Your task to perform on an android device: turn on translation in the chrome app Image 0: 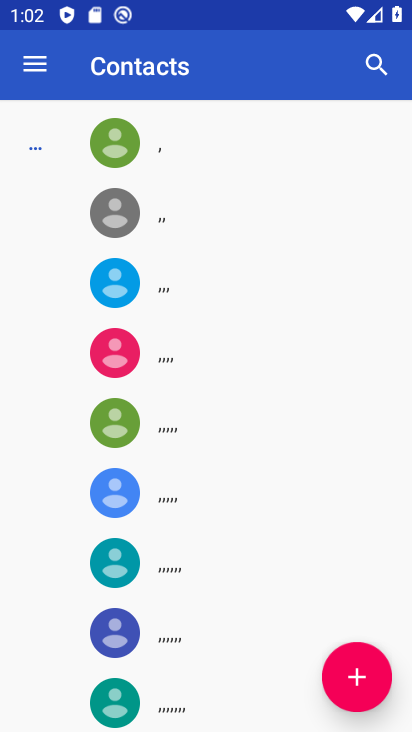
Step 0: press home button
Your task to perform on an android device: turn on translation in the chrome app Image 1: 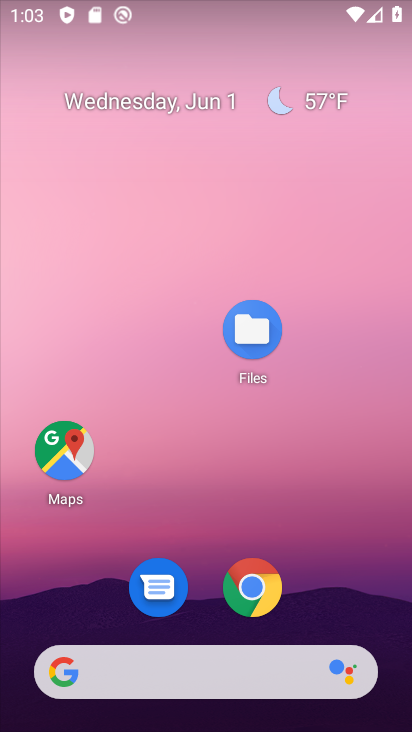
Step 1: click (247, 603)
Your task to perform on an android device: turn on translation in the chrome app Image 2: 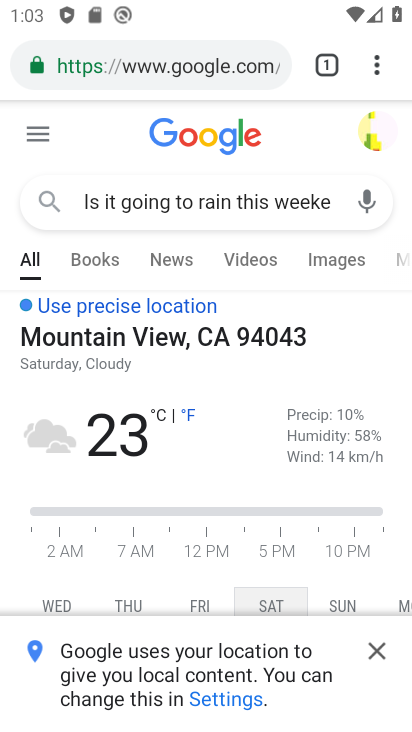
Step 2: drag from (371, 65) to (212, 636)
Your task to perform on an android device: turn on translation in the chrome app Image 3: 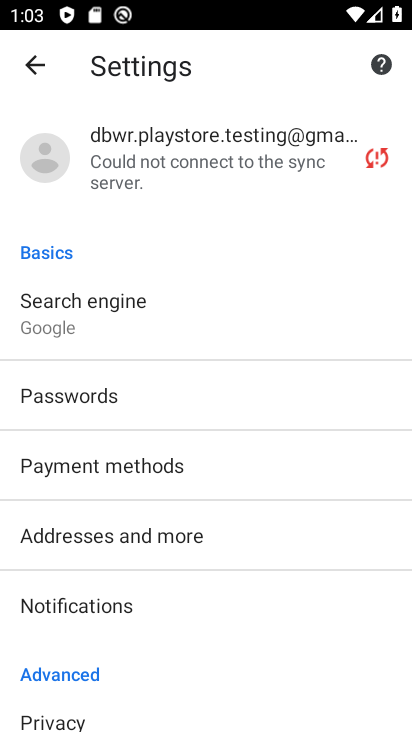
Step 3: drag from (192, 621) to (183, 329)
Your task to perform on an android device: turn on translation in the chrome app Image 4: 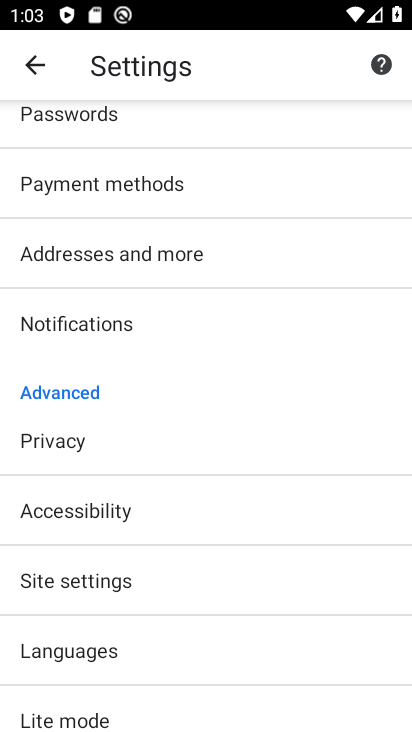
Step 4: drag from (141, 621) to (180, 414)
Your task to perform on an android device: turn on translation in the chrome app Image 5: 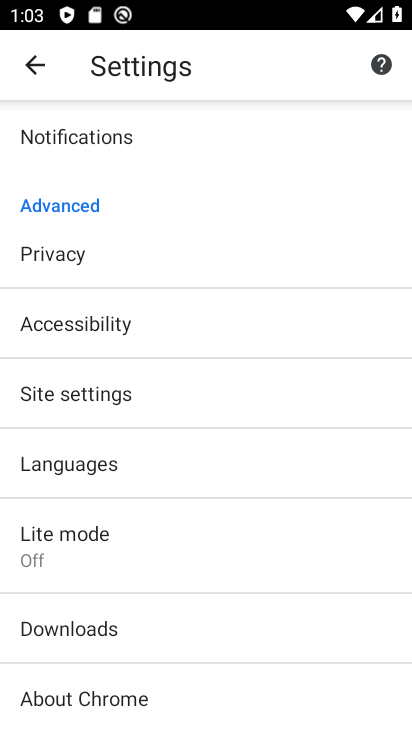
Step 5: click (122, 548)
Your task to perform on an android device: turn on translation in the chrome app Image 6: 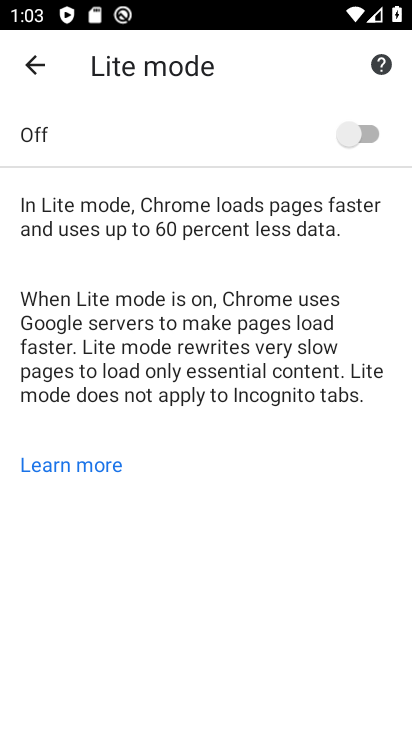
Step 6: click (185, 142)
Your task to perform on an android device: turn on translation in the chrome app Image 7: 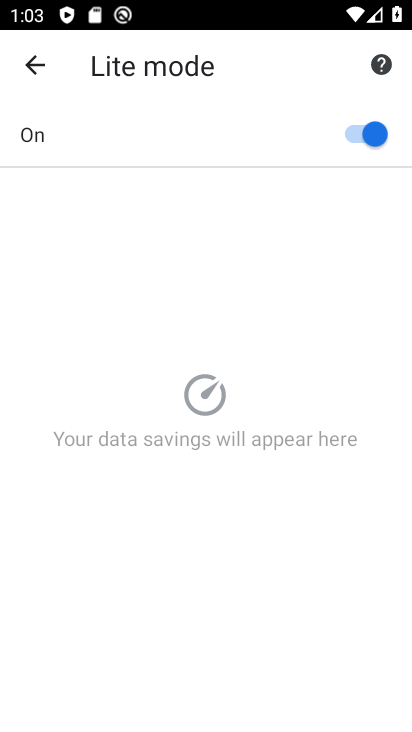
Step 7: task complete